Your task to perform on an android device: Clear the cart on amazon.com. Search for razer blade on amazon.com, select the first entry, and add it to the cart. Image 0: 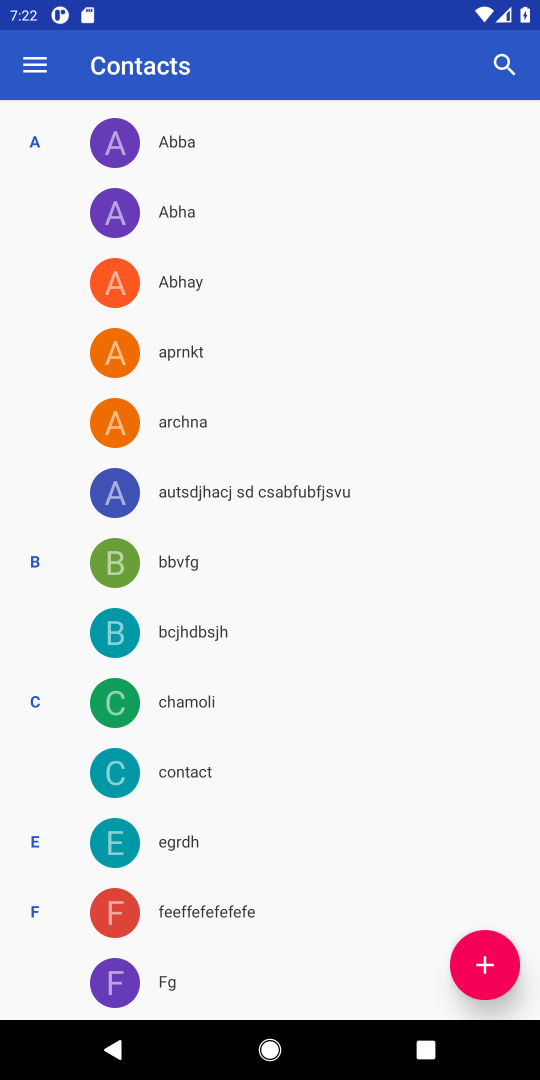
Step 0: press home button
Your task to perform on an android device: Clear the cart on amazon.com. Search for razer blade on amazon.com, select the first entry, and add it to the cart. Image 1: 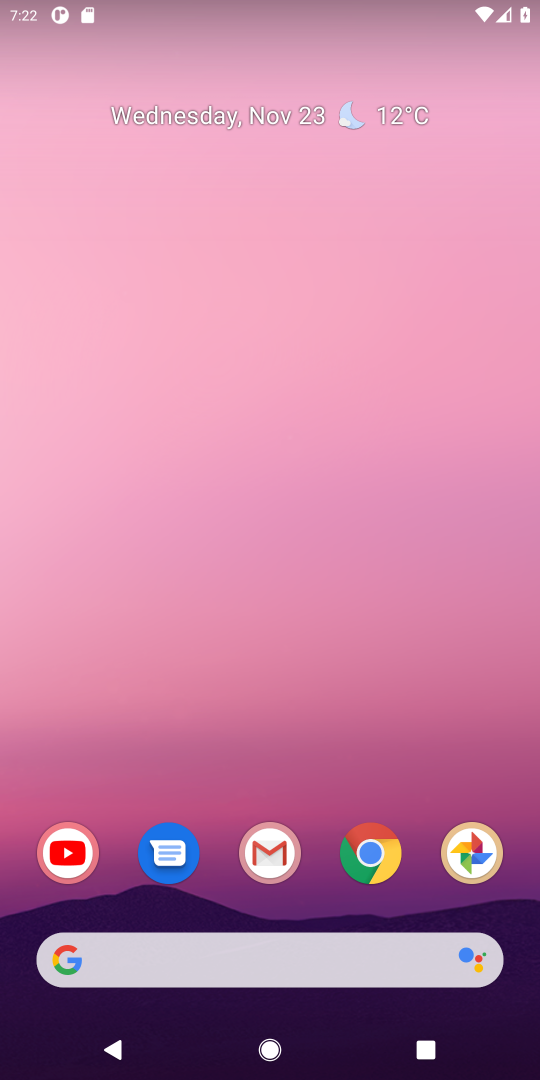
Step 1: click (369, 860)
Your task to perform on an android device: Clear the cart on amazon.com. Search for razer blade on amazon.com, select the first entry, and add it to the cart. Image 2: 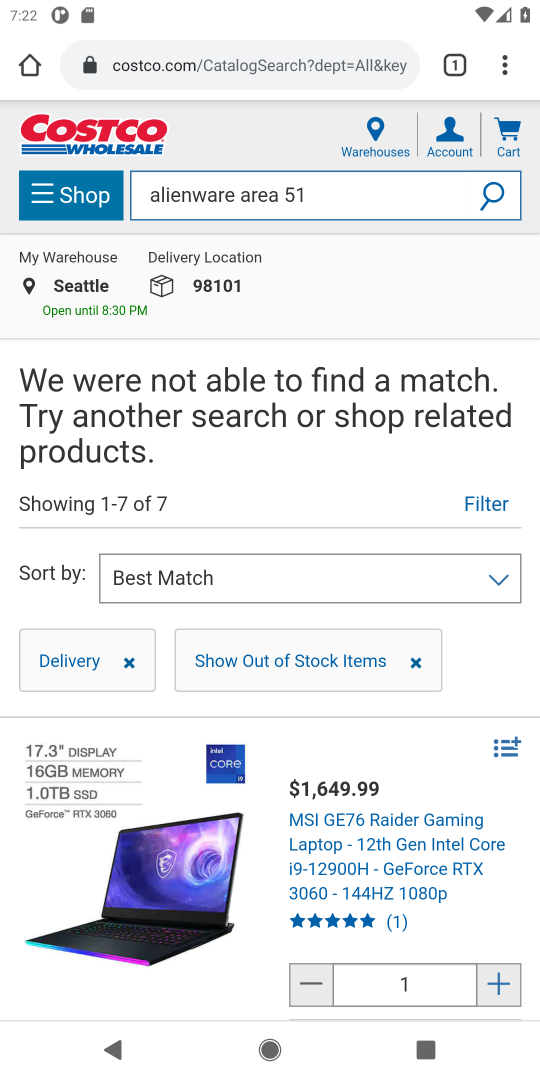
Step 2: click (215, 66)
Your task to perform on an android device: Clear the cart on amazon.com. Search for razer blade on amazon.com, select the first entry, and add it to the cart. Image 3: 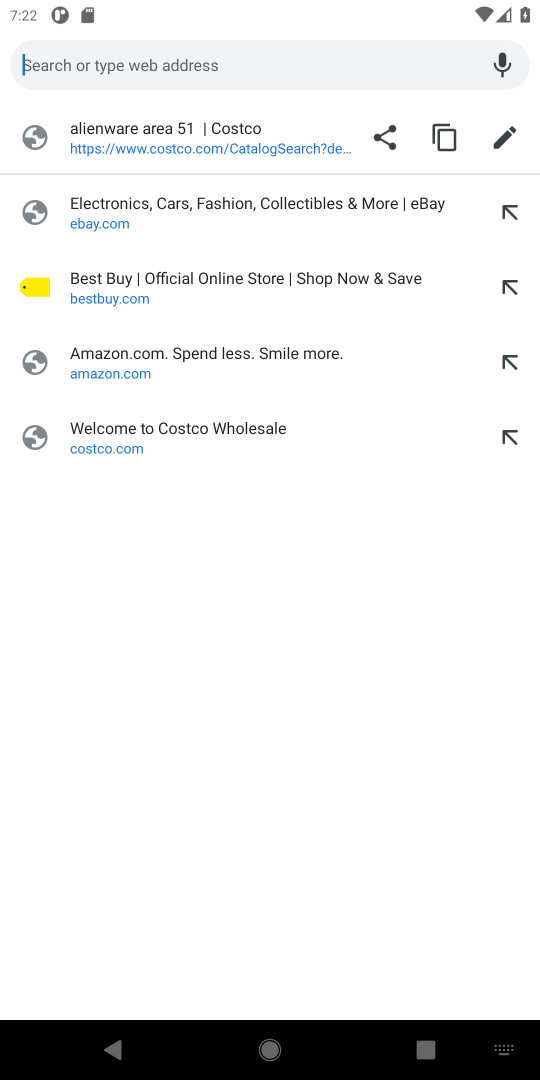
Step 3: click (102, 359)
Your task to perform on an android device: Clear the cart on amazon.com. Search for razer blade on amazon.com, select the first entry, and add it to the cart. Image 4: 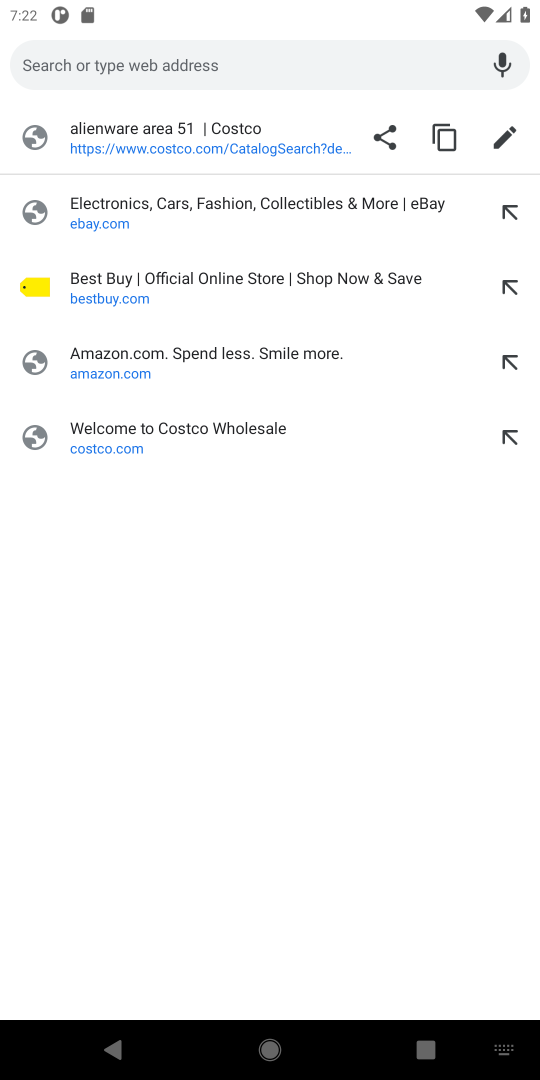
Step 4: click (85, 370)
Your task to perform on an android device: Clear the cart on amazon.com. Search for razer blade on amazon.com, select the first entry, and add it to the cart. Image 5: 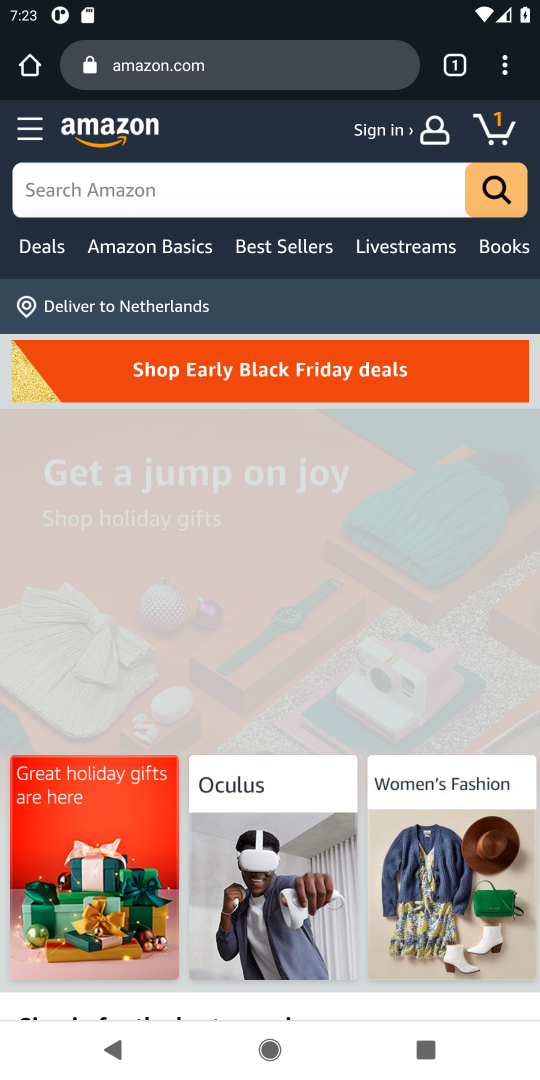
Step 5: click (501, 128)
Your task to perform on an android device: Clear the cart on amazon.com. Search for razer blade on amazon.com, select the first entry, and add it to the cart. Image 6: 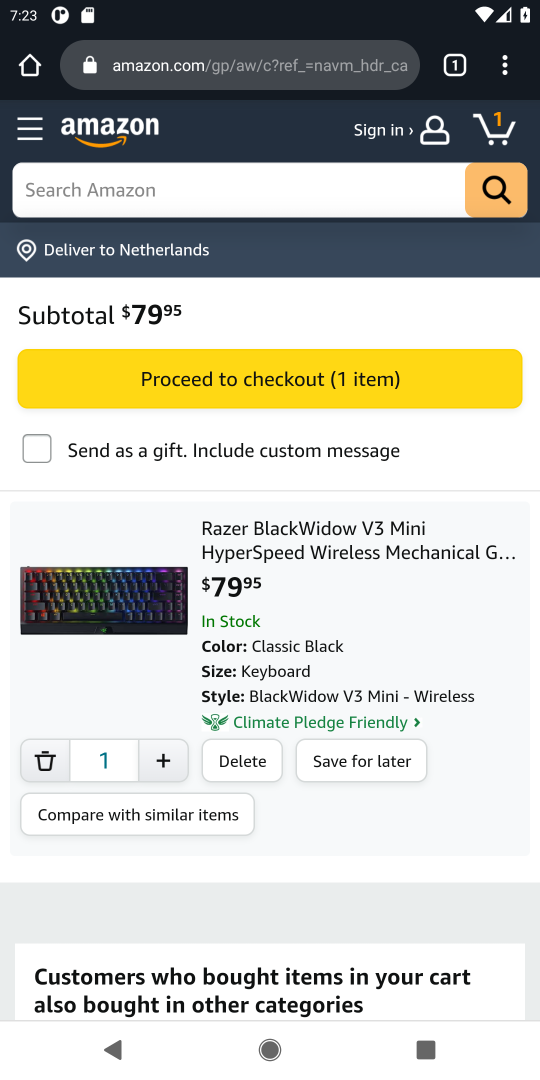
Step 6: click (237, 765)
Your task to perform on an android device: Clear the cart on amazon.com. Search for razer blade on amazon.com, select the first entry, and add it to the cart. Image 7: 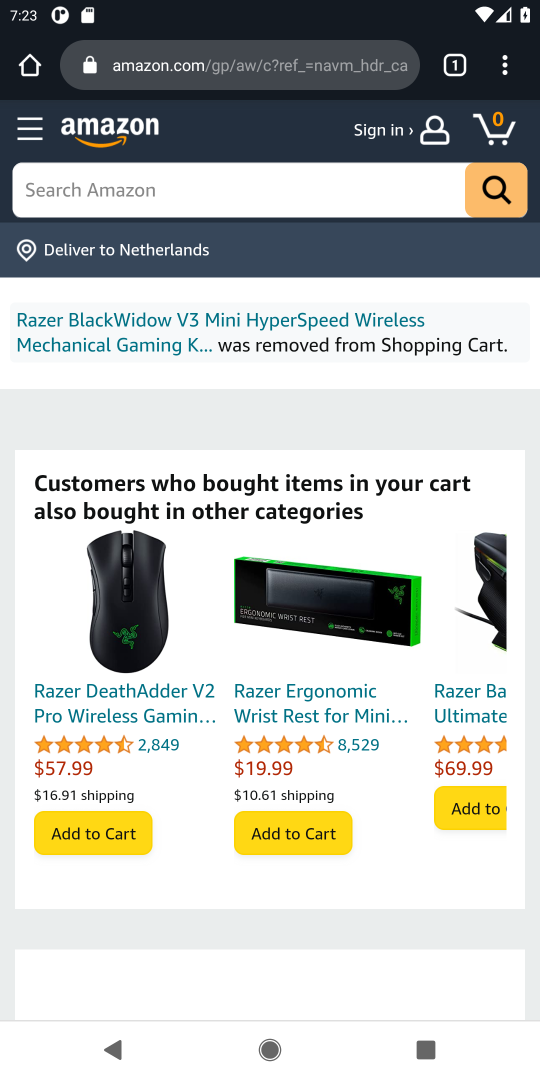
Step 7: click (88, 178)
Your task to perform on an android device: Clear the cart on amazon.com. Search for razer blade on amazon.com, select the first entry, and add it to the cart. Image 8: 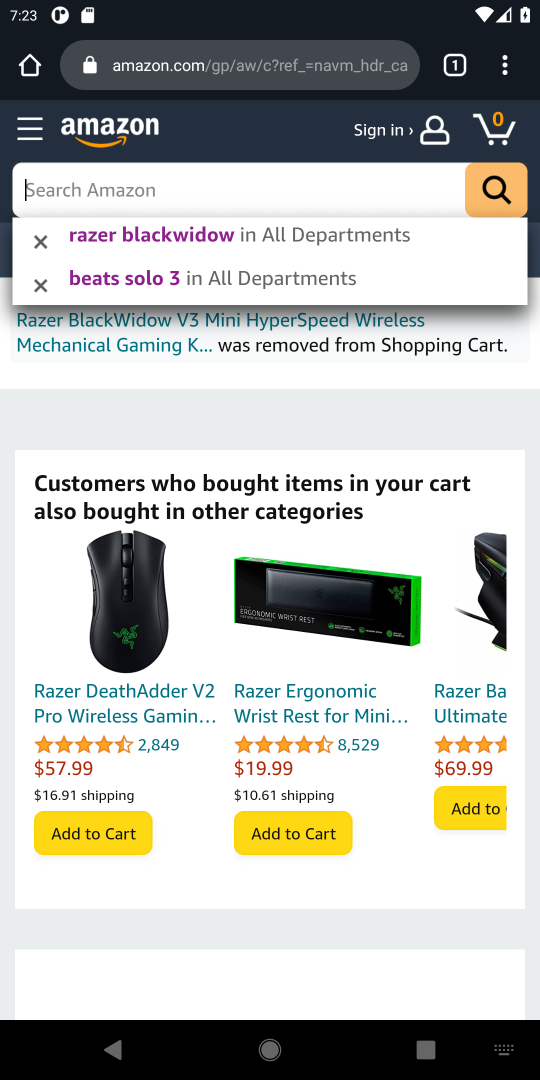
Step 8: type "razer blade"
Your task to perform on an android device: Clear the cart on amazon.com. Search for razer blade on amazon.com, select the first entry, and add it to the cart. Image 9: 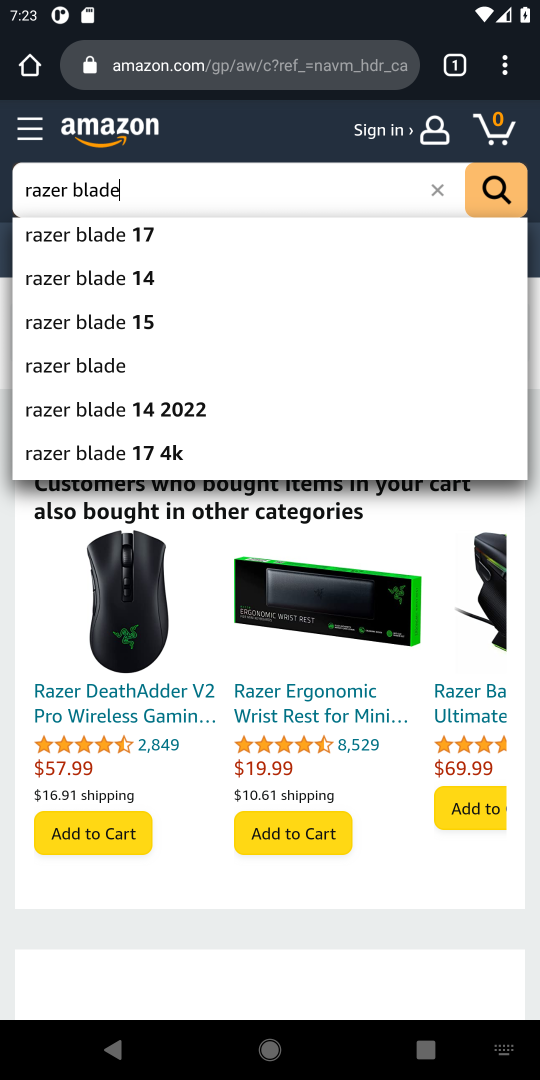
Step 9: click (95, 373)
Your task to perform on an android device: Clear the cart on amazon.com. Search for razer blade on amazon.com, select the first entry, and add it to the cart. Image 10: 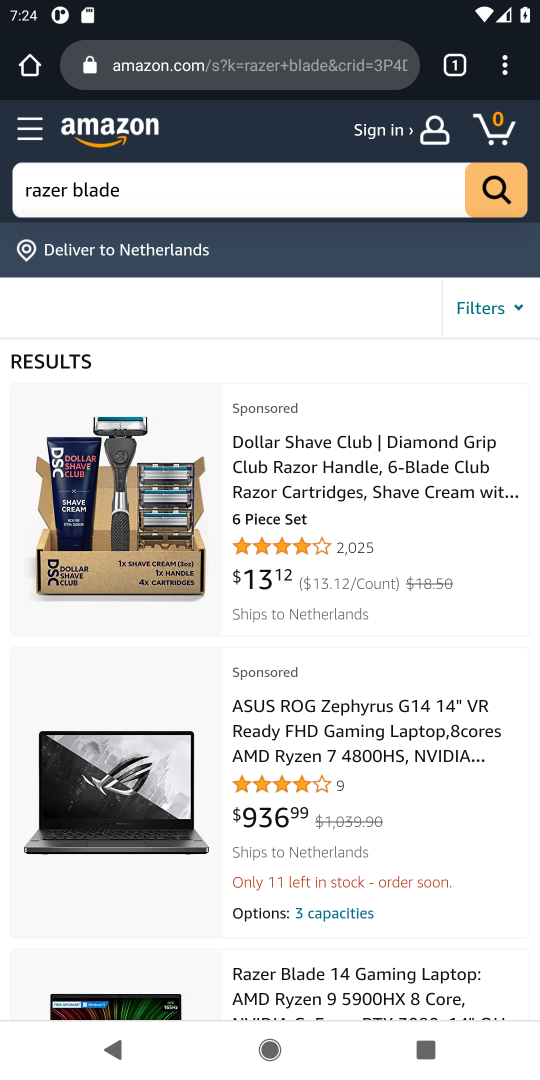
Step 10: task complete